Your task to perform on an android device: Go to notification settings Image 0: 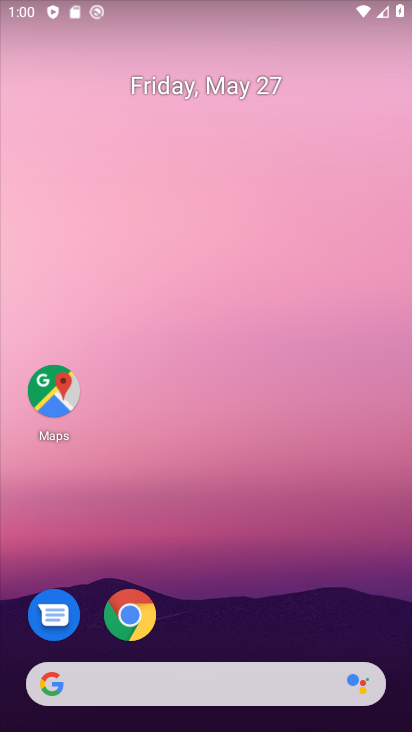
Step 0: drag from (265, 617) to (266, 40)
Your task to perform on an android device: Go to notification settings Image 1: 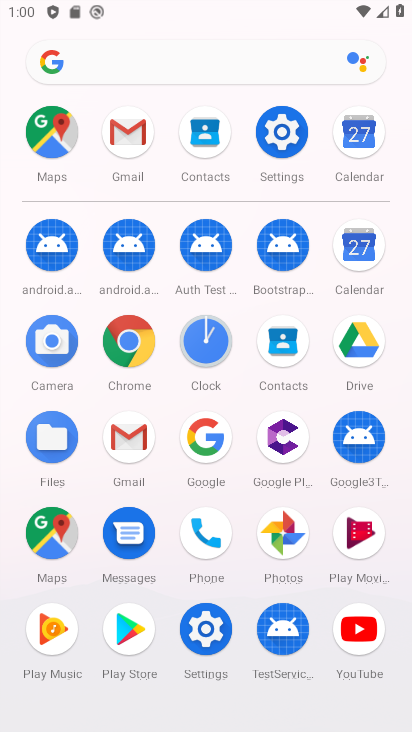
Step 1: click (278, 125)
Your task to perform on an android device: Go to notification settings Image 2: 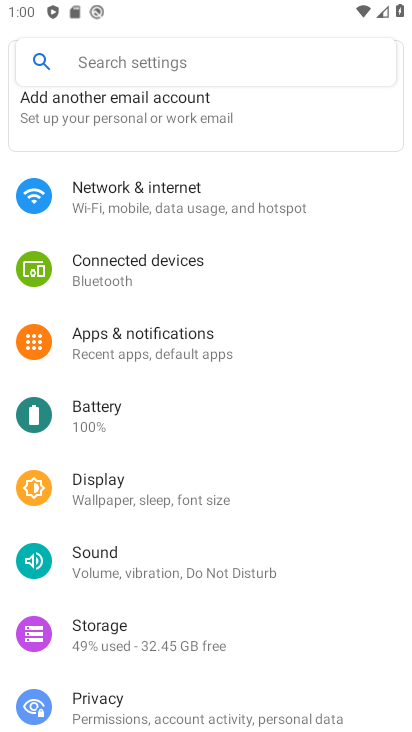
Step 2: click (130, 355)
Your task to perform on an android device: Go to notification settings Image 3: 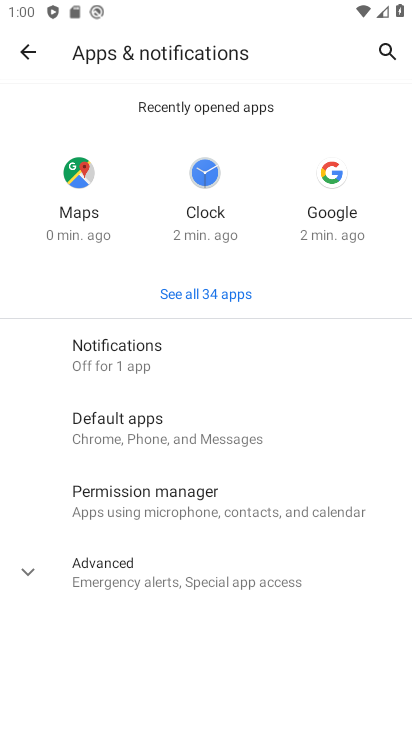
Step 3: click (106, 347)
Your task to perform on an android device: Go to notification settings Image 4: 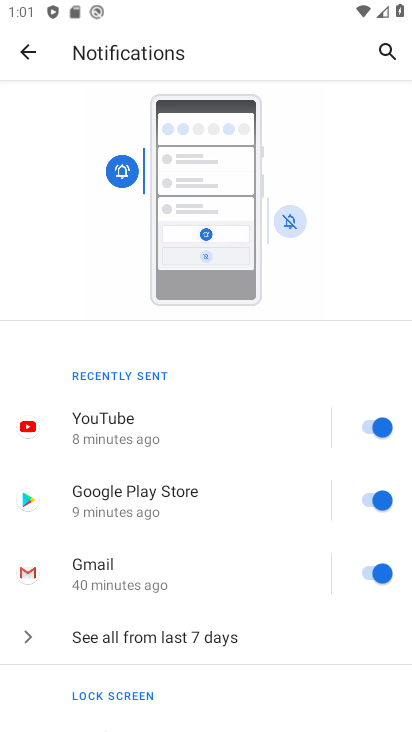
Step 4: task complete